Your task to perform on an android device: turn off location history Image 0: 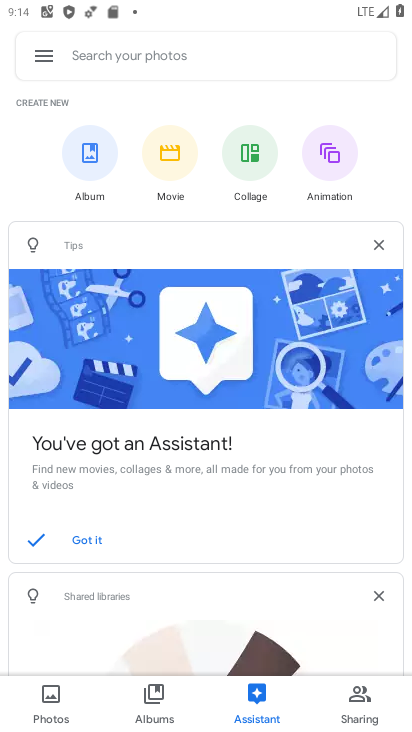
Step 0: press home button
Your task to perform on an android device: turn off location history Image 1: 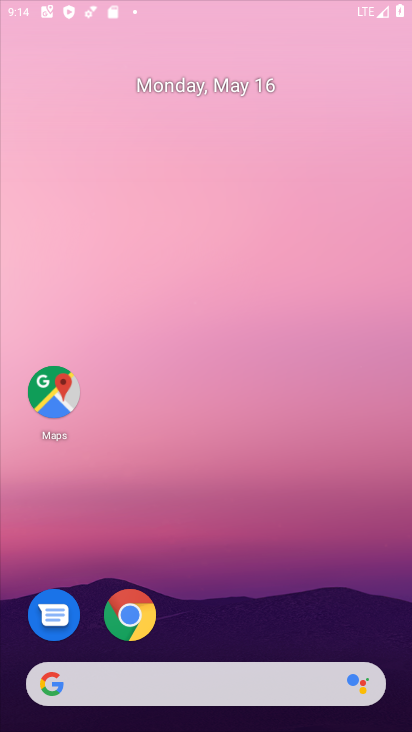
Step 1: drag from (248, 639) to (2, 278)
Your task to perform on an android device: turn off location history Image 2: 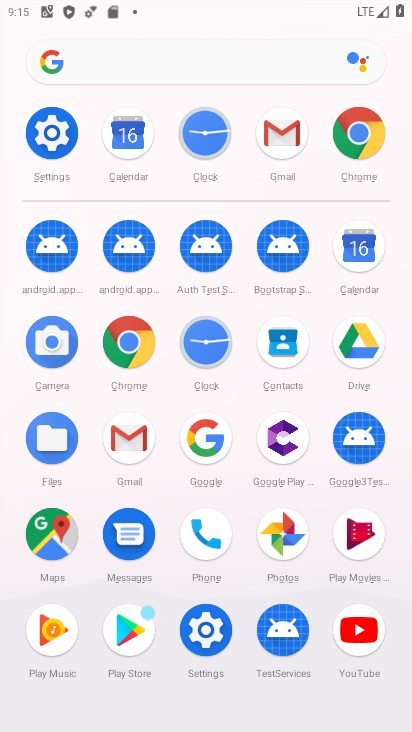
Step 2: click (58, 160)
Your task to perform on an android device: turn off location history Image 3: 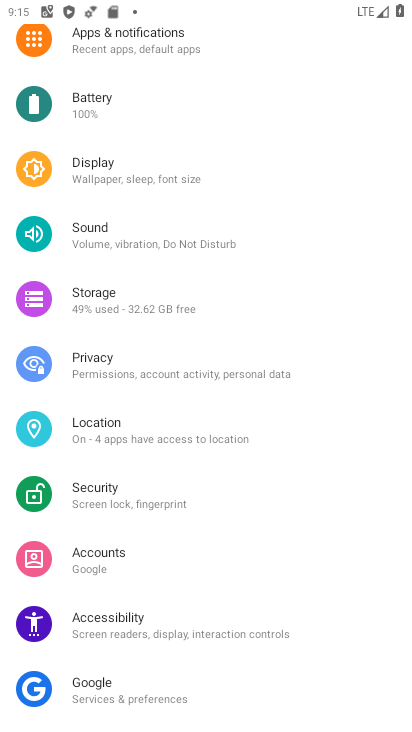
Step 3: click (152, 446)
Your task to perform on an android device: turn off location history Image 4: 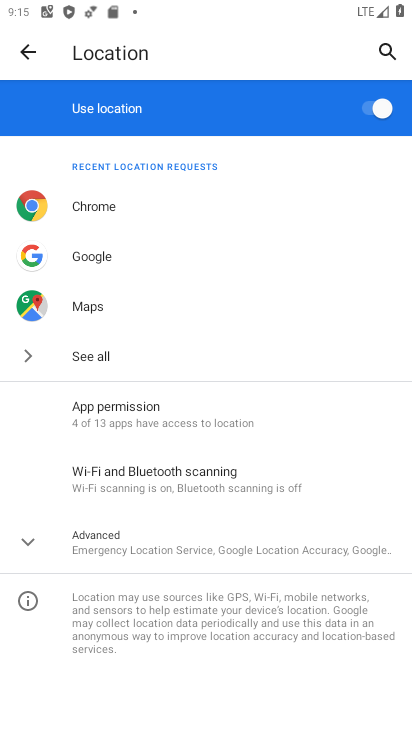
Step 4: click (116, 553)
Your task to perform on an android device: turn off location history Image 5: 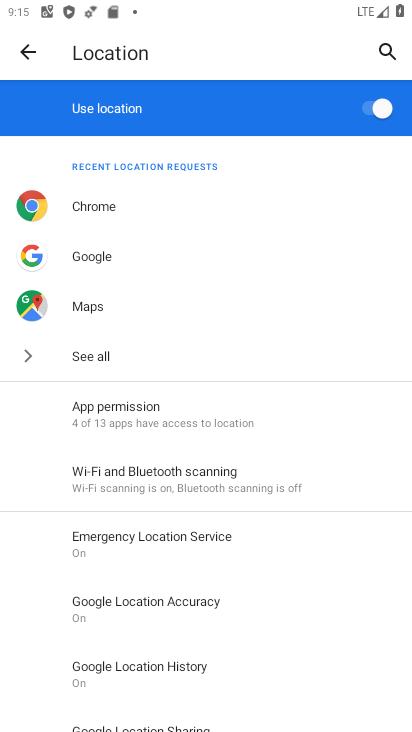
Step 5: drag from (114, 482) to (135, 286)
Your task to perform on an android device: turn off location history Image 6: 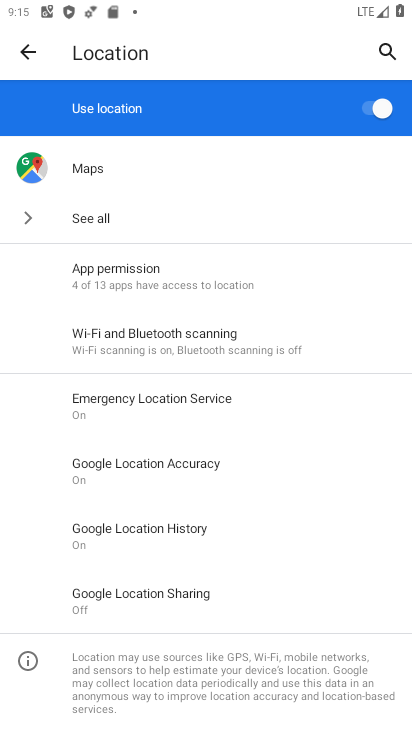
Step 6: click (174, 532)
Your task to perform on an android device: turn off location history Image 7: 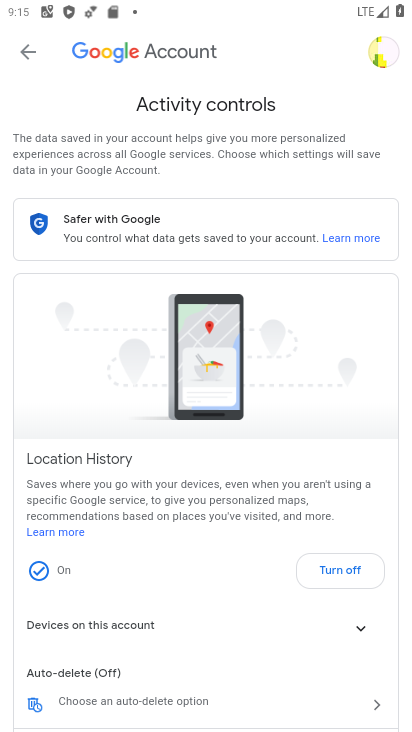
Step 7: click (342, 576)
Your task to perform on an android device: turn off location history Image 8: 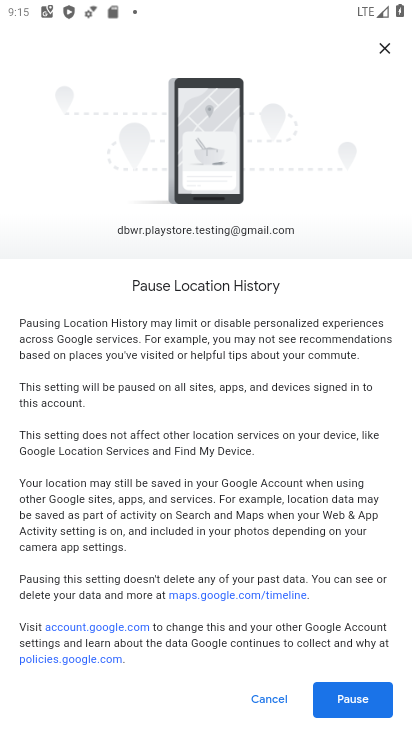
Step 8: click (355, 704)
Your task to perform on an android device: turn off location history Image 9: 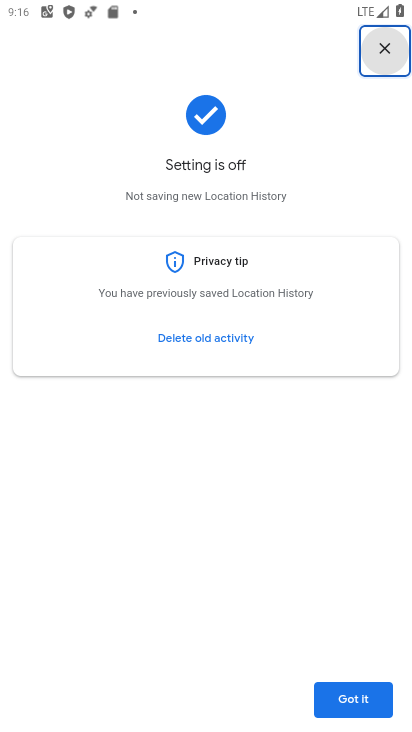
Step 9: click (372, 699)
Your task to perform on an android device: turn off location history Image 10: 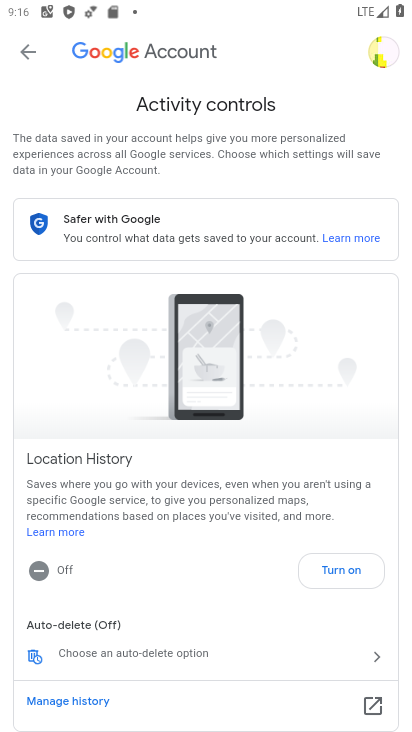
Step 10: task complete